Your task to perform on an android device: How do I get to the nearest Lowe's? Image 0: 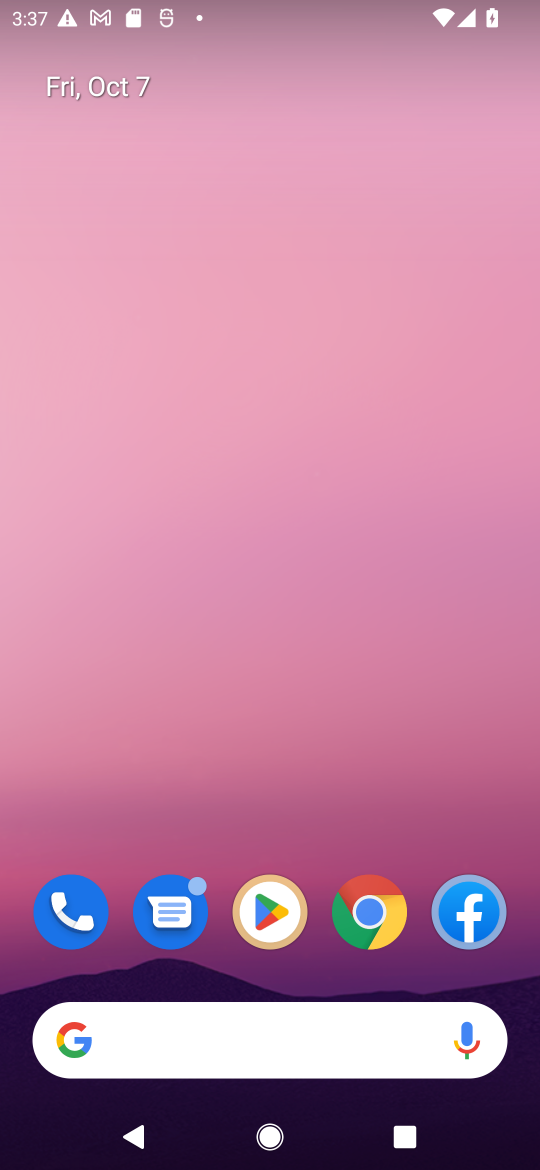
Step 0: drag from (316, 942) to (320, 476)
Your task to perform on an android device: How do I get to the nearest Lowe's? Image 1: 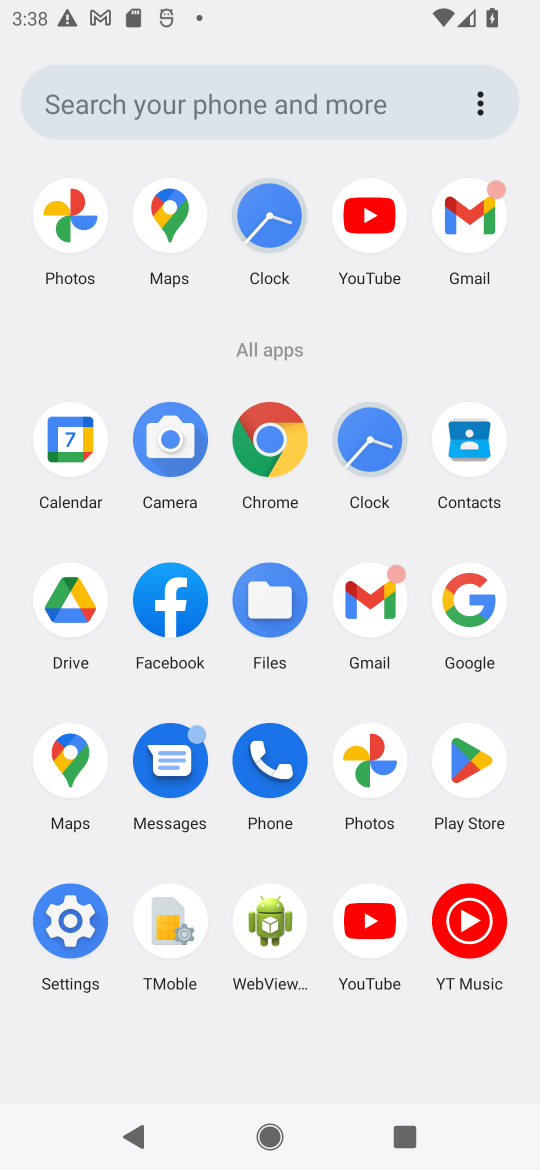
Step 1: click (459, 591)
Your task to perform on an android device: How do I get to the nearest Lowe's? Image 2: 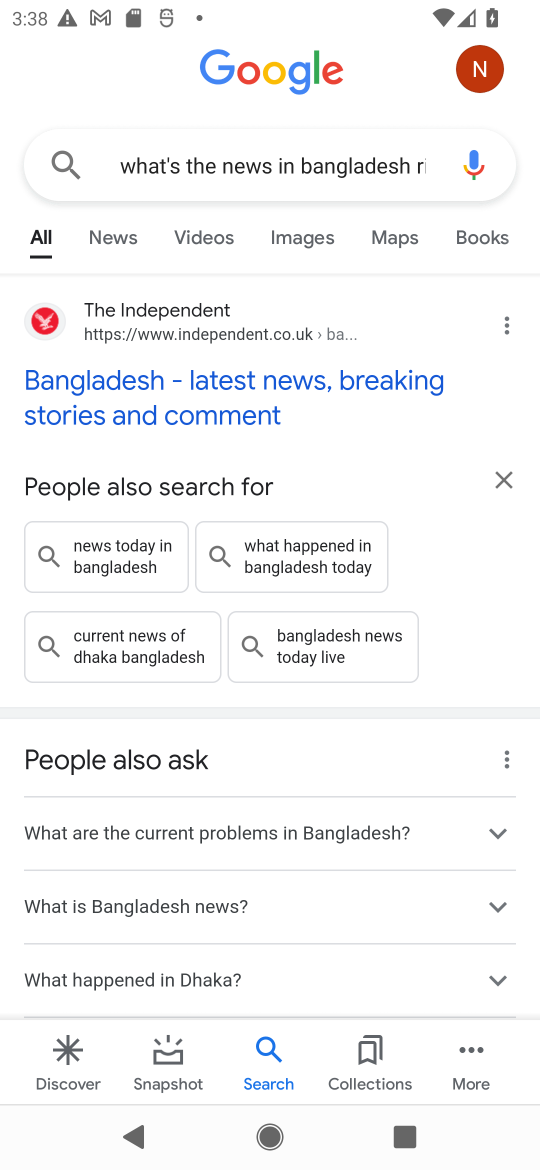
Step 2: click (326, 157)
Your task to perform on an android device: How do I get to the nearest Lowe's? Image 3: 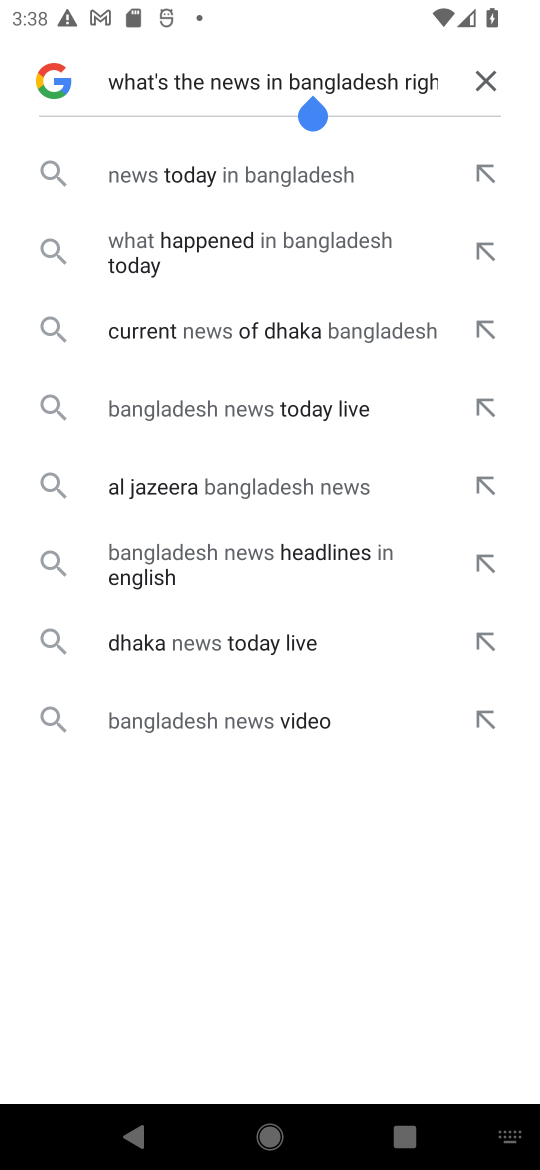
Step 3: click (490, 72)
Your task to perform on an android device: How do I get to the nearest Lowe's? Image 4: 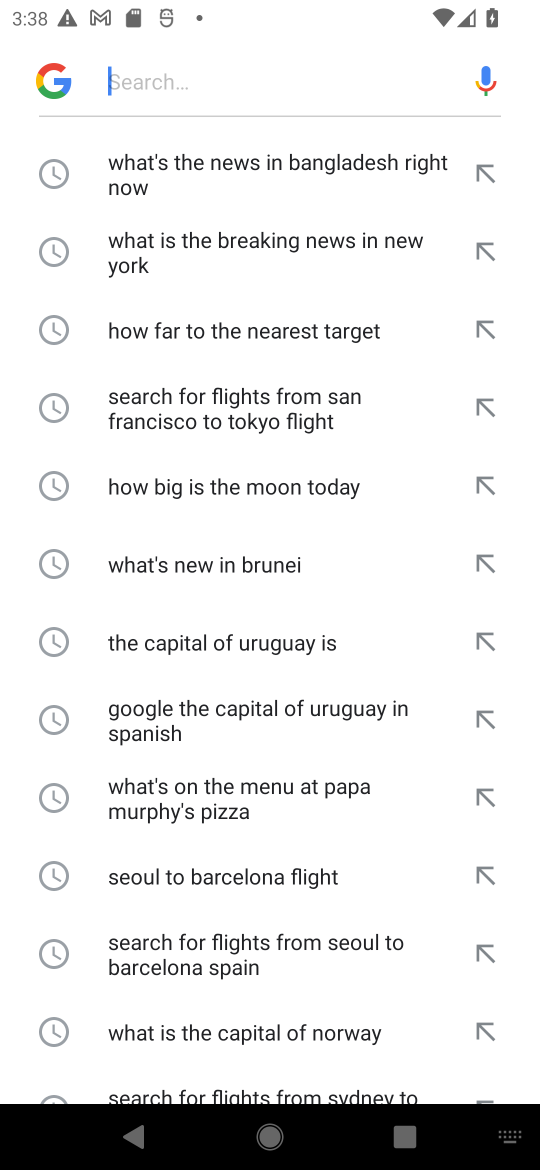
Step 4: click (316, 71)
Your task to perform on an android device: How do I get to the nearest Lowe's? Image 5: 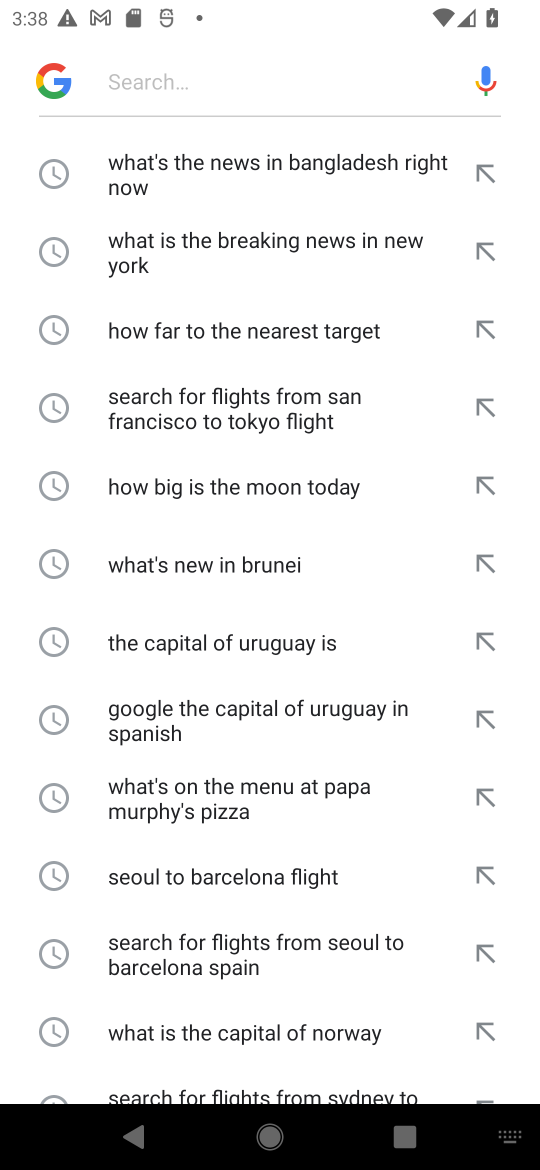
Step 5: type "How do I get to the nearest Lowe's? "
Your task to perform on an android device: How do I get to the nearest Lowe's? Image 6: 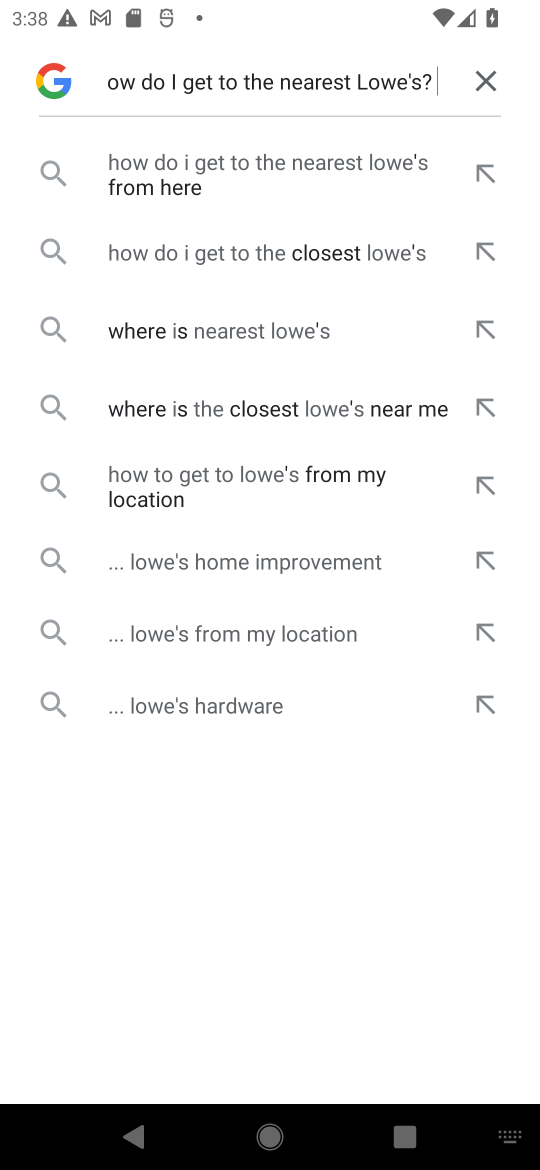
Step 6: click (231, 182)
Your task to perform on an android device: How do I get to the nearest Lowe's? Image 7: 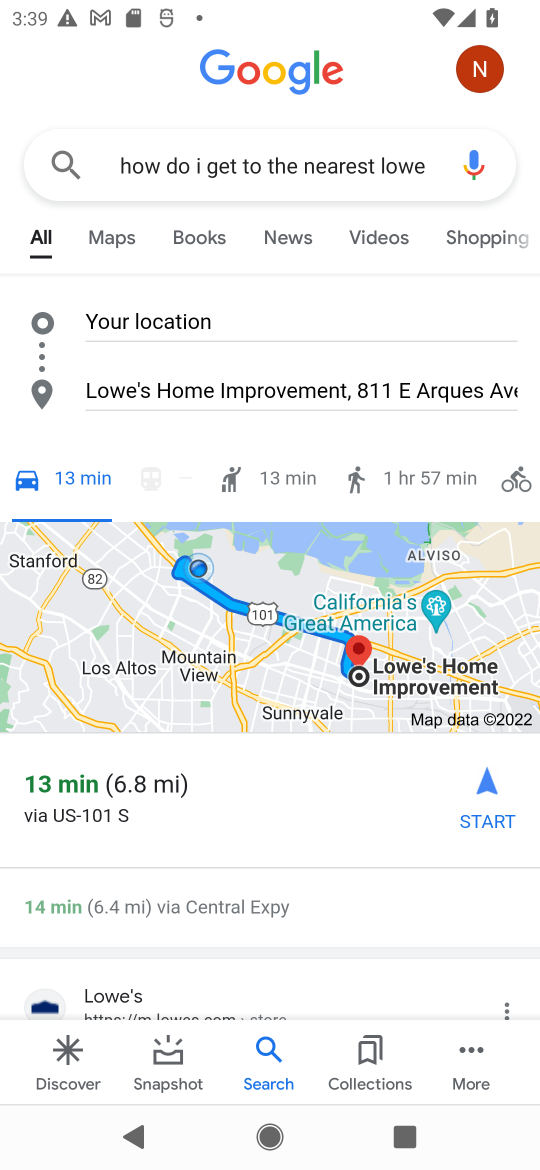
Step 7: task complete